Your task to perform on an android device: Check the weather Image 0: 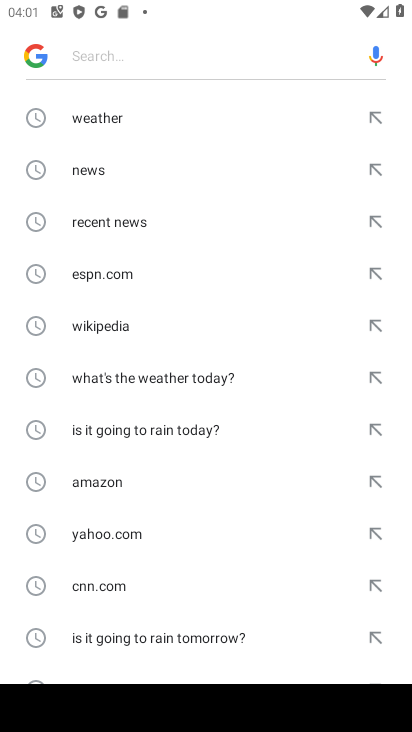
Step 0: click (105, 119)
Your task to perform on an android device: Check the weather Image 1: 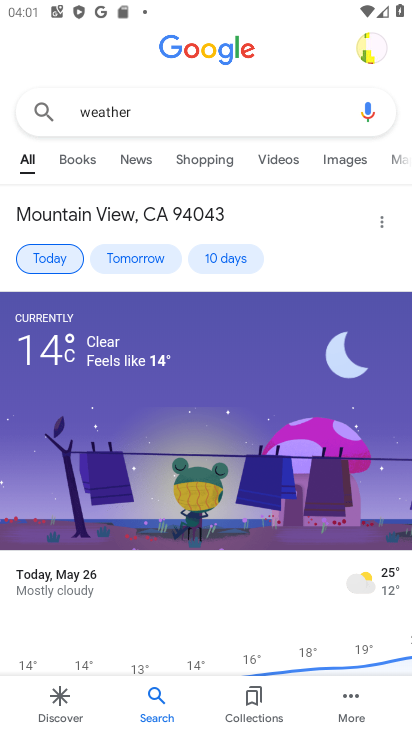
Step 1: task complete